Your task to perform on an android device: toggle notification dots Image 0: 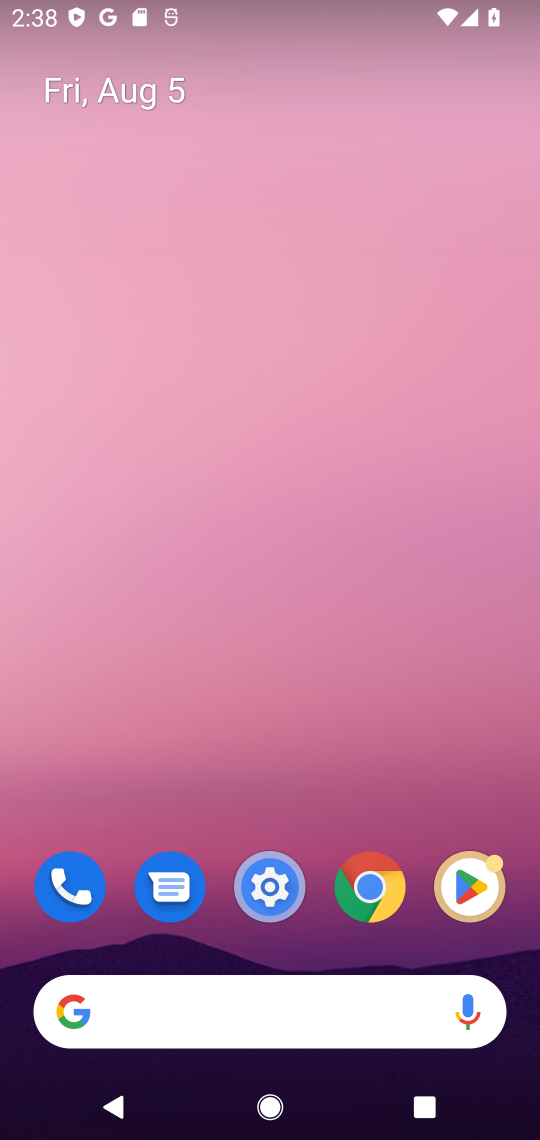
Step 0: click (271, 875)
Your task to perform on an android device: toggle notification dots Image 1: 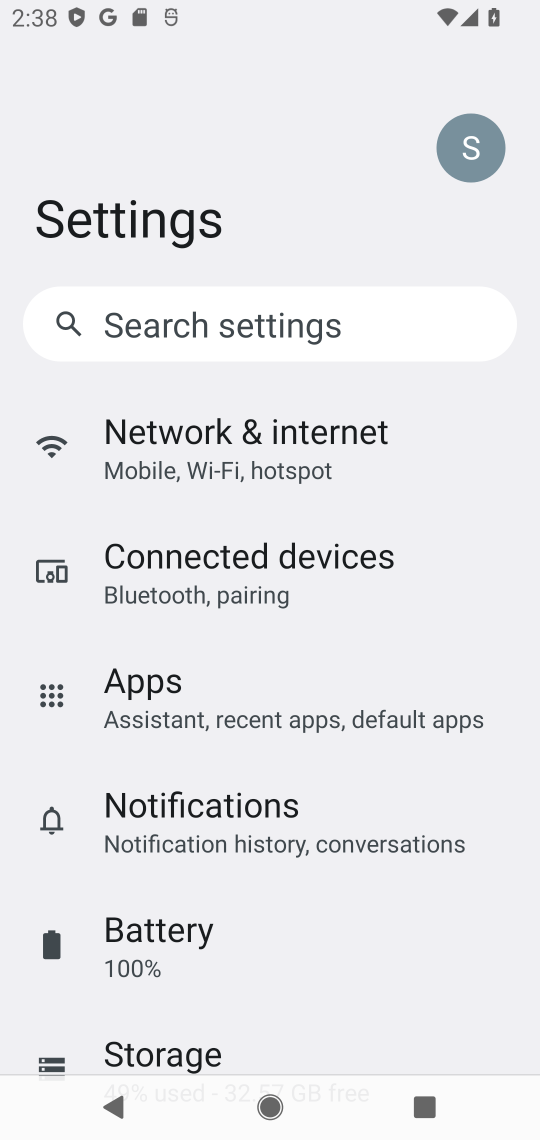
Step 1: click (254, 793)
Your task to perform on an android device: toggle notification dots Image 2: 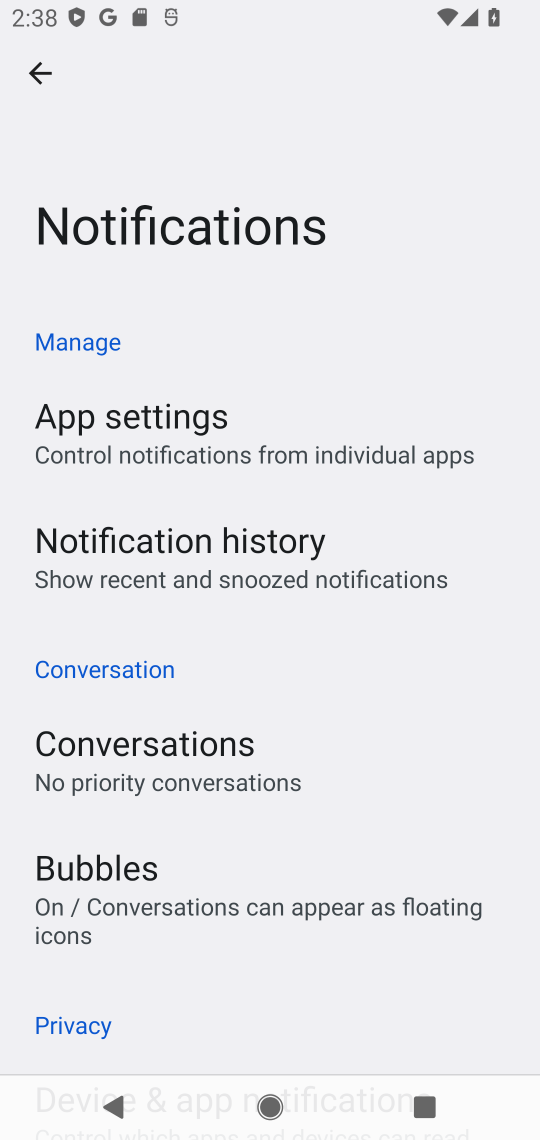
Step 2: drag from (314, 835) to (346, 286)
Your task to perform on an android device: toggle notification dots Image 3: 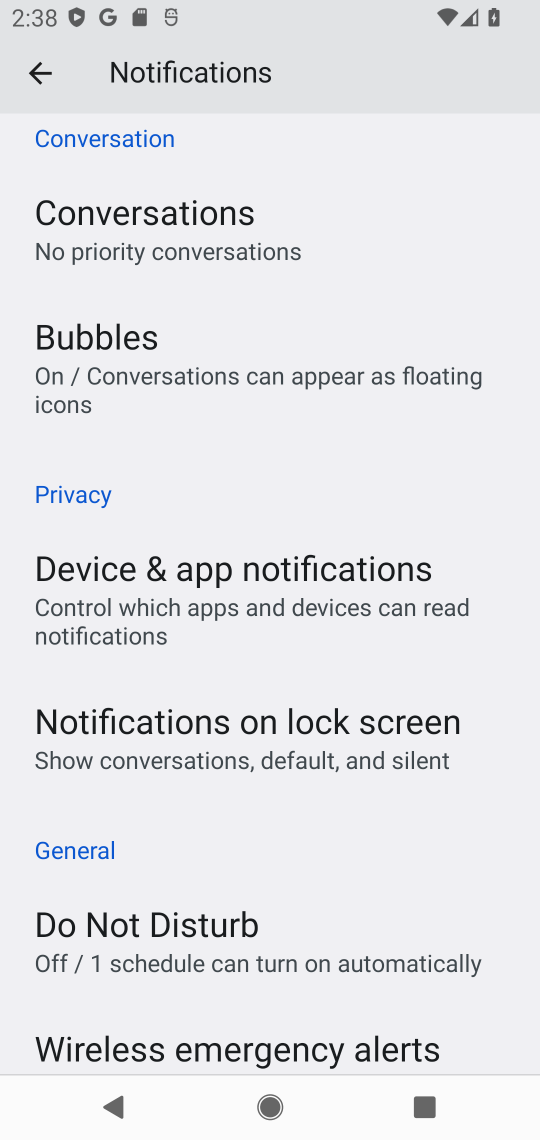
Step 3: drag from (322, 312) to (296, 870)
Your task to perform on an android device: toggle notification dots Image 4: 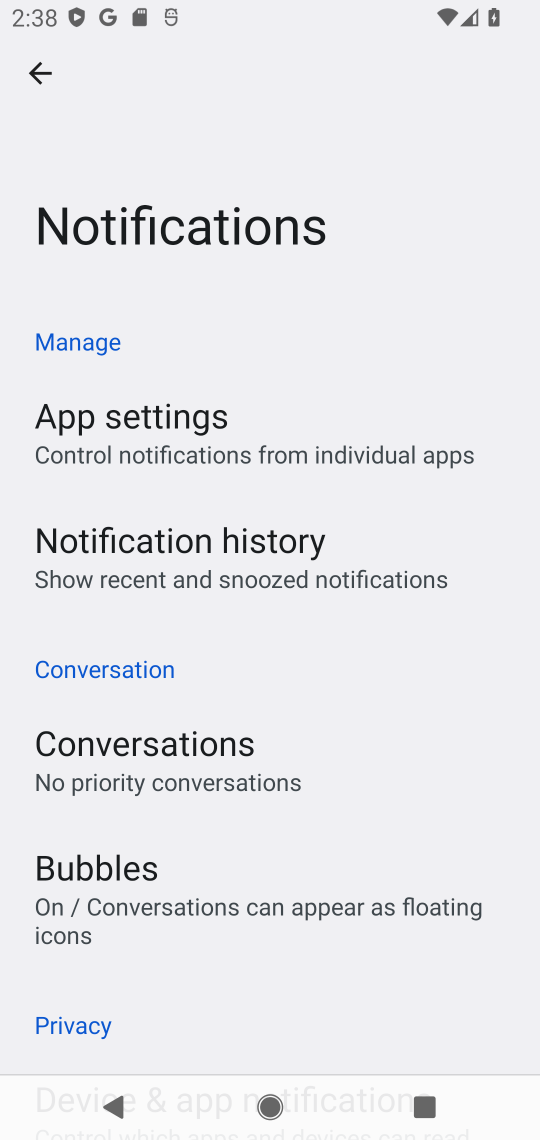
Step 4: drag from (296, 867) to (333, 293)
Your task to perform on an android device: toggle notification dots Image 5: 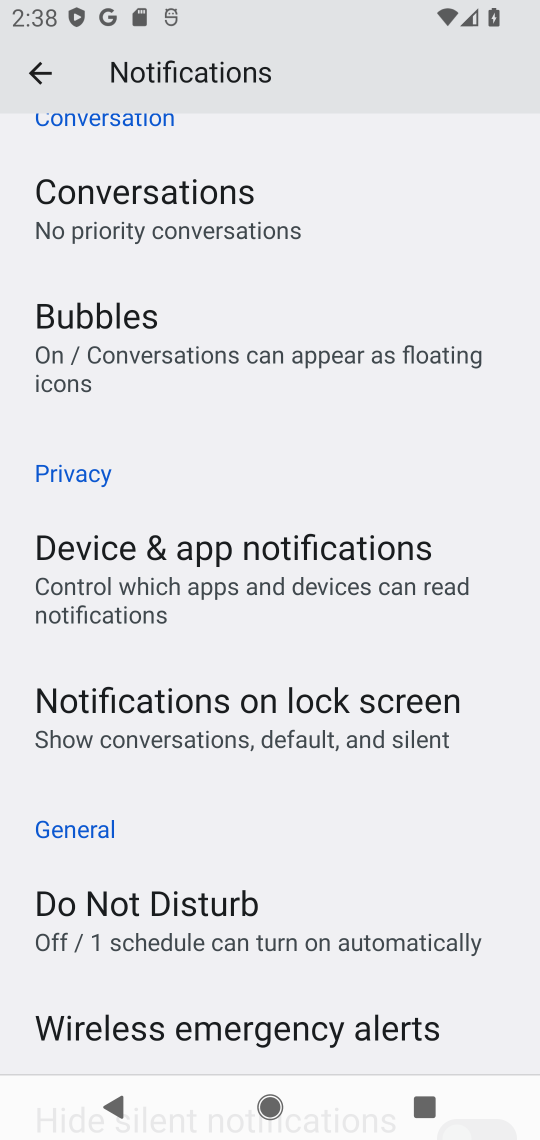
Step 5: drag from (317, 838) to (287, 292)
Your task to perform on an android device: toggle notification dots Image 6: 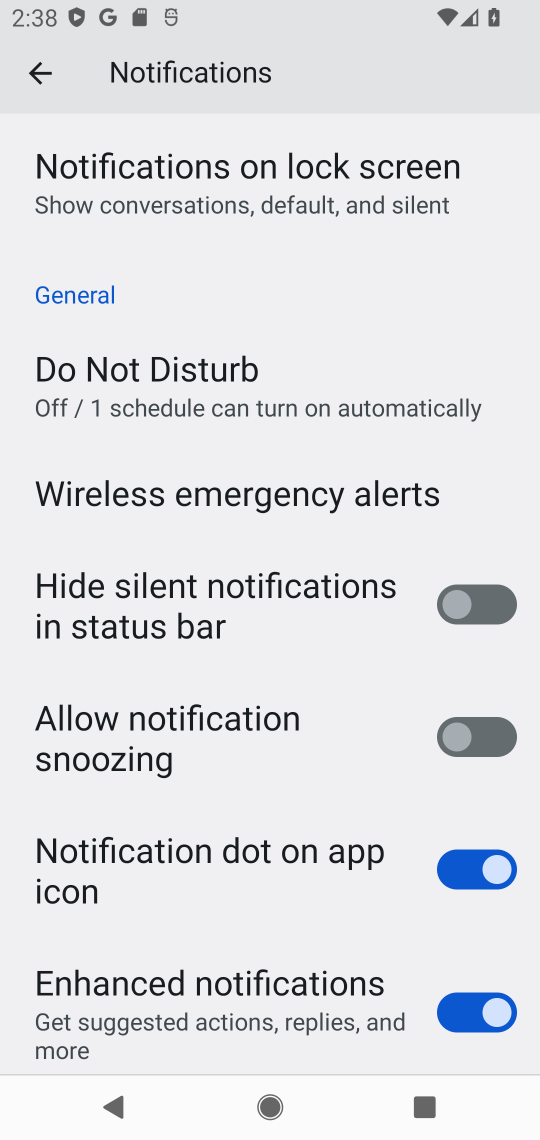
Step 6: click (464, 863)
Your task to perform on an android device: toggle notification dots Image 7: 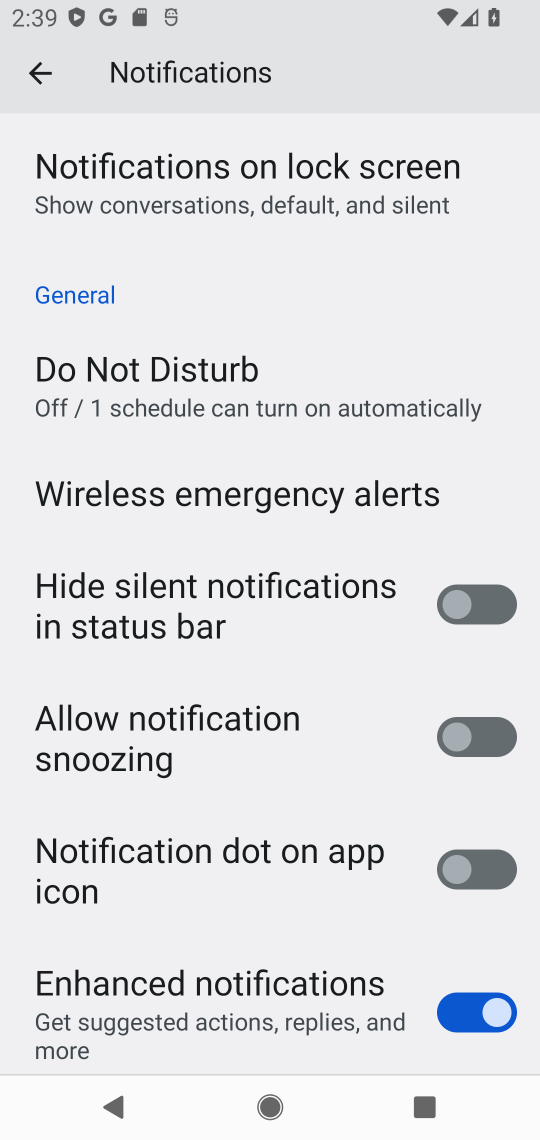
Step 7: task complete